Your task to perform on an android device: turn off notifications in google photos Image 0: 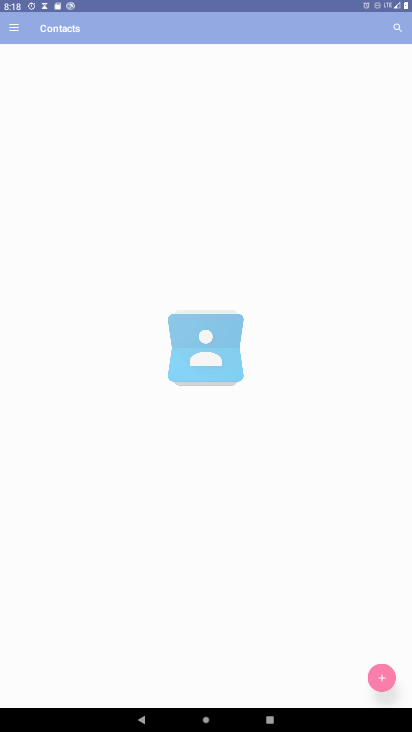
Step 0: drag from (352, 625) to (77, 79)
Your task to perform on an android device: turn off notifications in google photos Image 1: 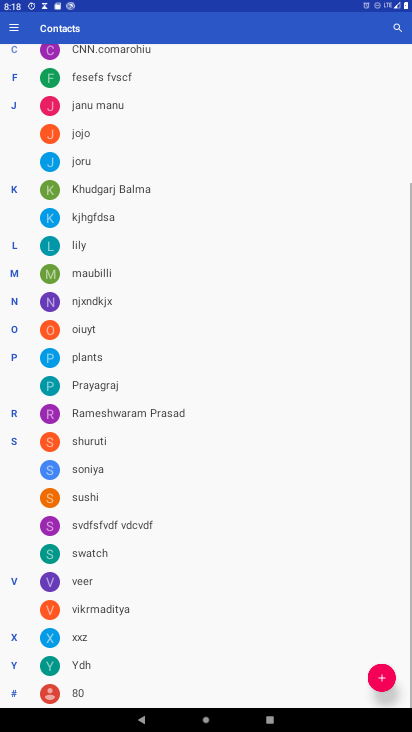
Step 1: press home button
Your task to perform on an android device: turn off notifications in google photos Image 2: 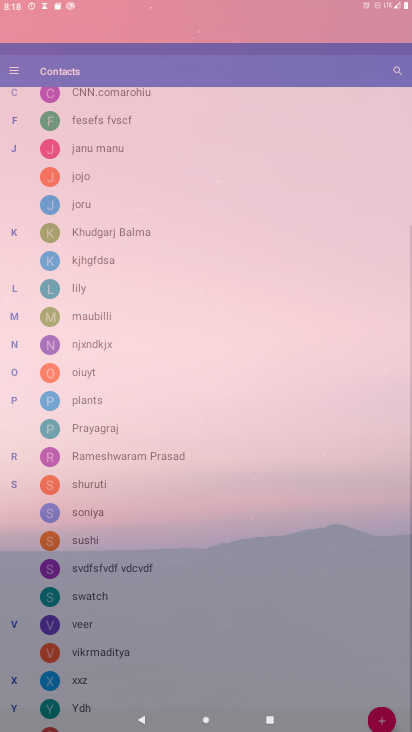
Step 2: drag from (372, 657) to (138, 42)
Your task to perform on an android device: turn off notifications in google photos Image 3: 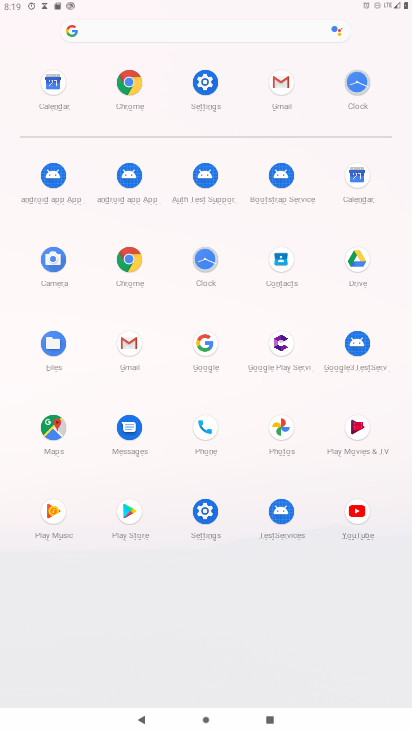
Step 3: click (284, 425)
Your task to perform on an android device: turn off notifications in google photos Image 4: 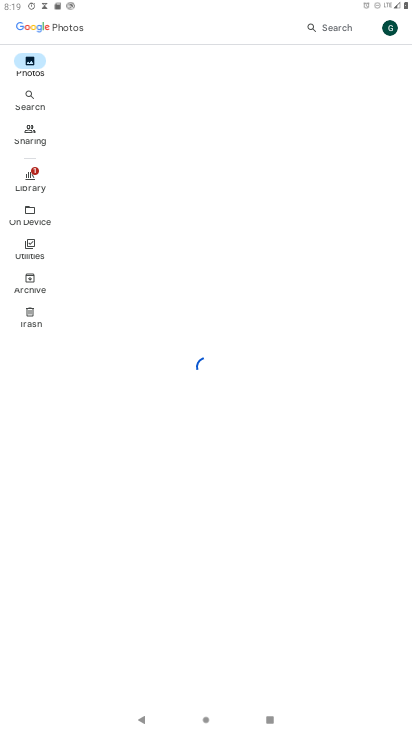
Step 4: click (389, 24)
Your task to perform on an android device: turn off notifications in google photos Image 5: 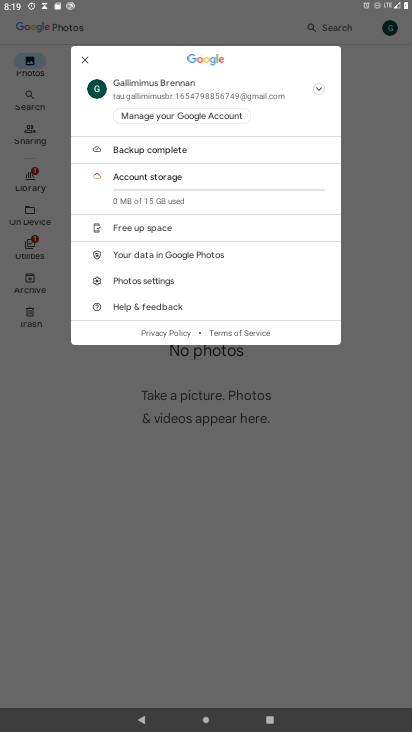
Step 5: click (155, 277)
Your task to perform on an android device: turn off notifications in google photos Image 6: 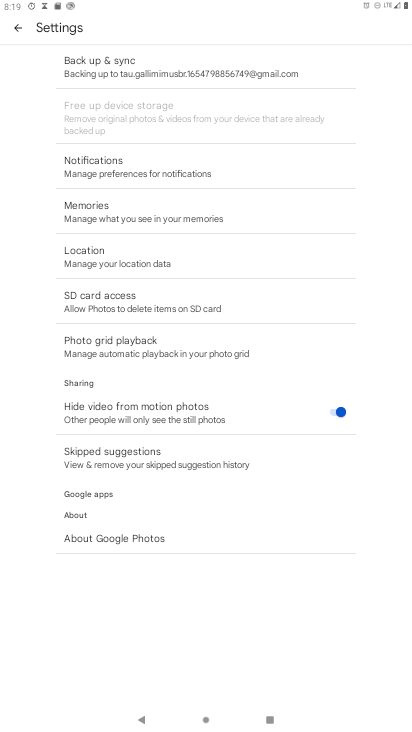
Step 6: click (102, 163)
Your task to perform on an android device: turn off notifications in google photos Image 7: 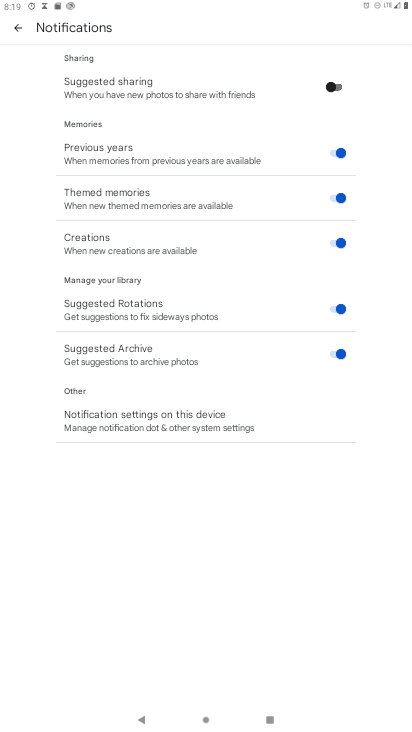
Step 7: task complete